Your task to perform on an android device: visit the assistant section in the google photos Image 0: 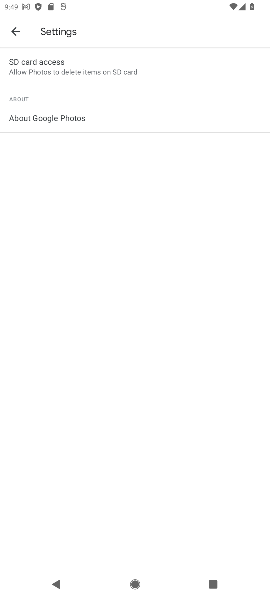
Step 0: press back button
Your task to perform on an android device: visit the assistant section in the google photos Image 1: 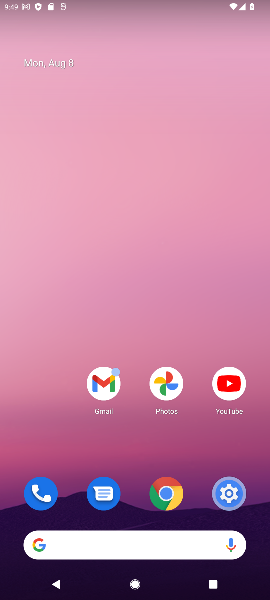
Step 1: click (166, 383)
Your task to perform on an android device: visit the assistant section in the google photos Image 2: 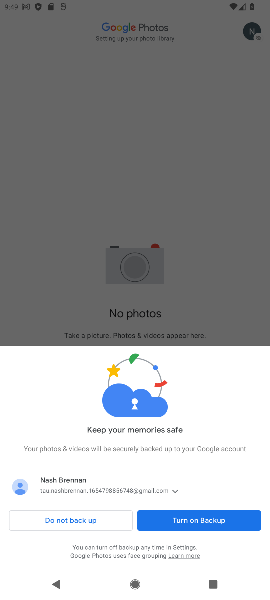
Step 2: click (80, 528)
Your task to perform on an android device: visit the assistant section in the google photos Image 3: 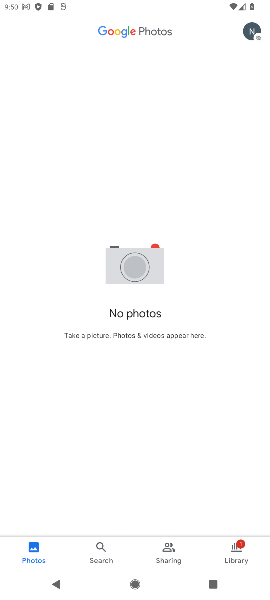
Step 3: task complete